Your task to perform on an android device: delete location history Image 0: 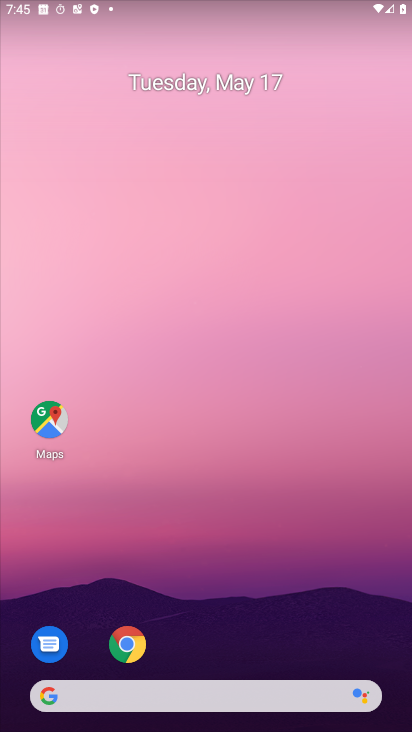
Step 0: drag from (284, 652) to (206, 94)
Your task to perform on an android device: delete location history Image 1: 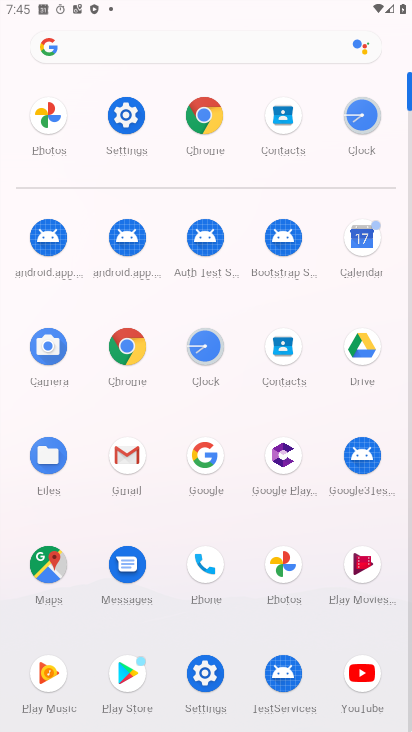
Step 1: click (107, 116)
Your task to perform on an android device: delete location history Image 2: 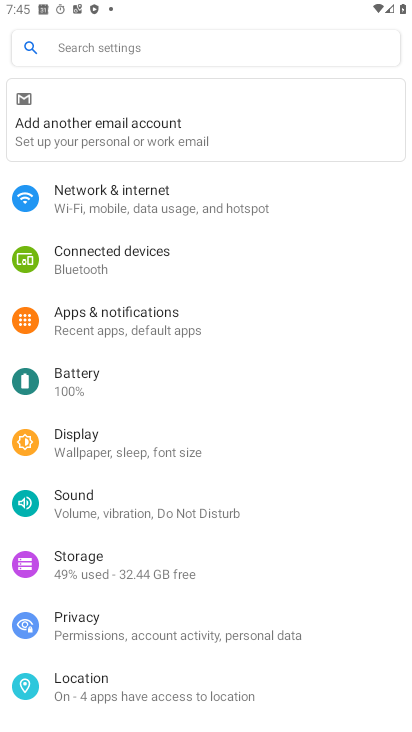
Step 2: click (106, 698)
Your task to perform on an android device: delete location history Image 3: 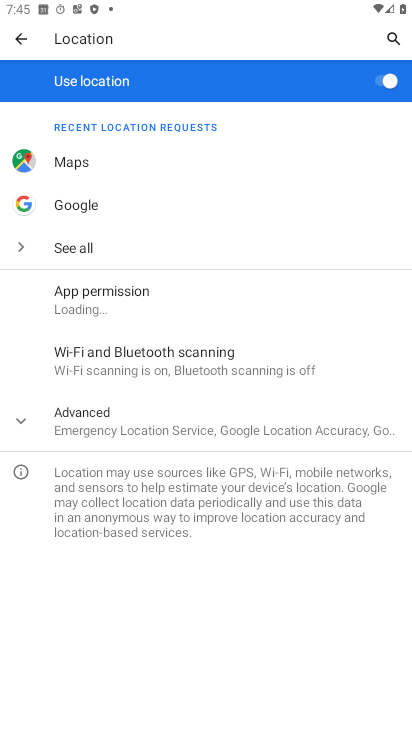
Step 3: click (49, 415)
Your task to perform on an android device: delete location history Image 4: 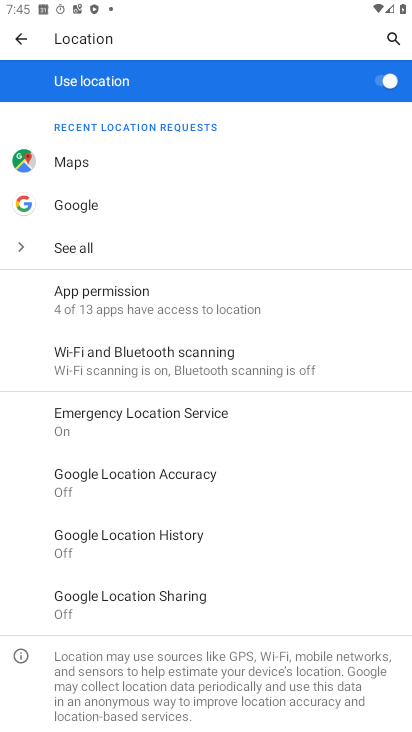
Step 4: click (179, 544)
Your task to perform on an android device: delete location history Image 5: 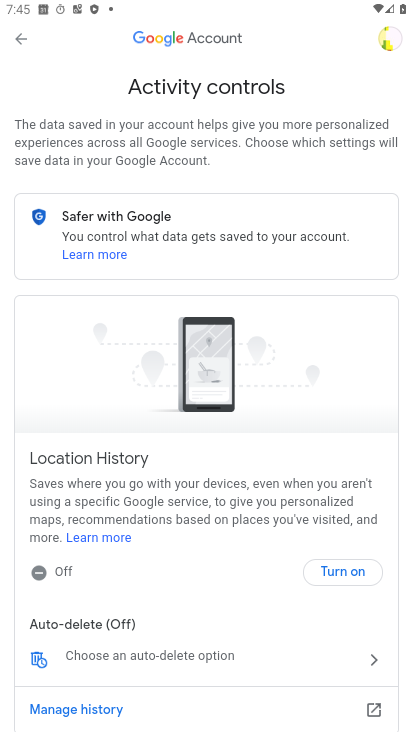
Step 5: click (202, 665)
Your task to perform on an android device: delete location history Image 6: 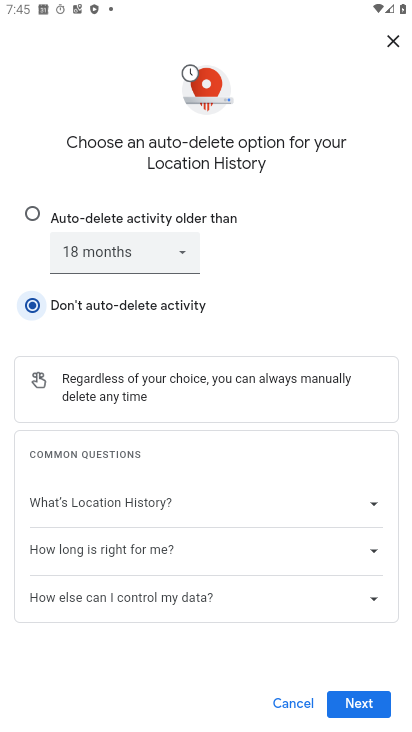
Step 6: click (349, 713)
Your task to perform on an android device: delete location history Image 7: 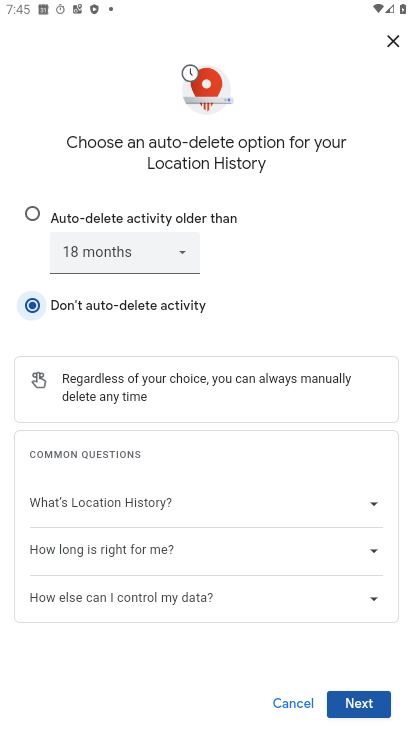
Step 7: click (349, 705)
Your task to perform on an android device: delete location history Image 8: 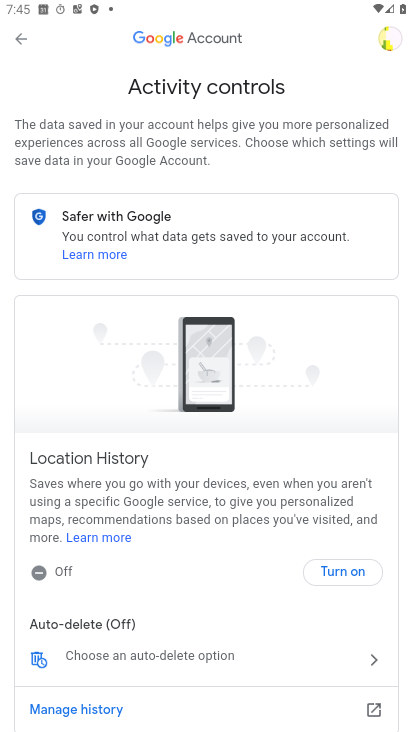
Step 8: task complete